Your task to perform on an android device: Open maps Image 0: 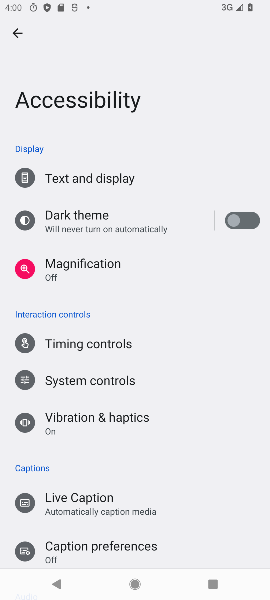
Step 0: press home button
Your task to perform on an android device: Open maps Image 1: 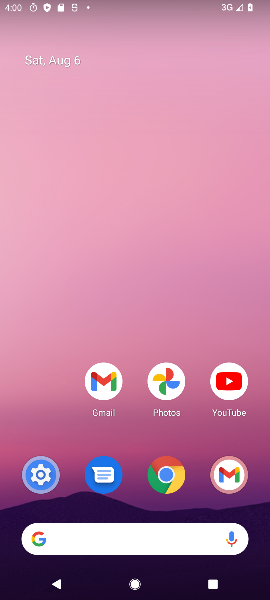
Step 1: drag from (25, 568) to (57, 394)
Your task to perform on an android device: Open maps Image 2: 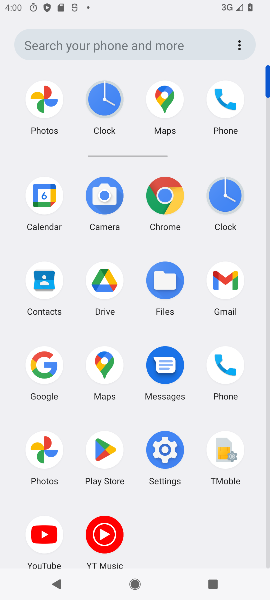
Step 2: click (96, 372)
Your task to perform on an android device: Open maps Image 3: 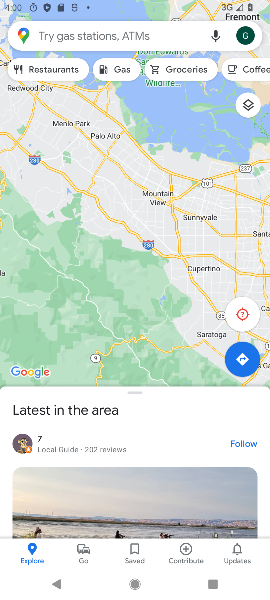
Step 3: task complete